Your task to perform on an android device: Open calendar and show me the fourth week of next month Image 0: 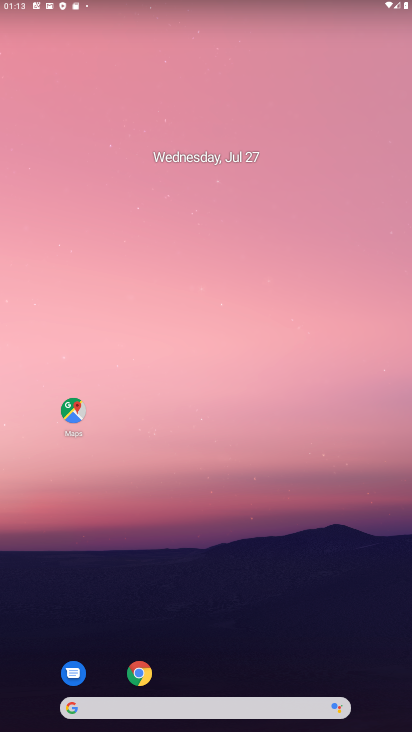
Step 0: drag from (249, 645) to (240, 190)
Your task to perform on an android device: Open calendar and show me the fourth week of next month Image 1: 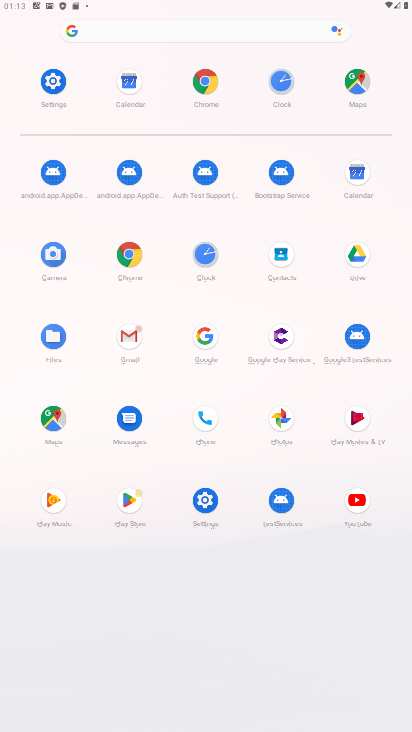
Step 1: click (353, 182)
Your task to perform on an android device: Open calendar and show me the fourth week of next month Image 2: 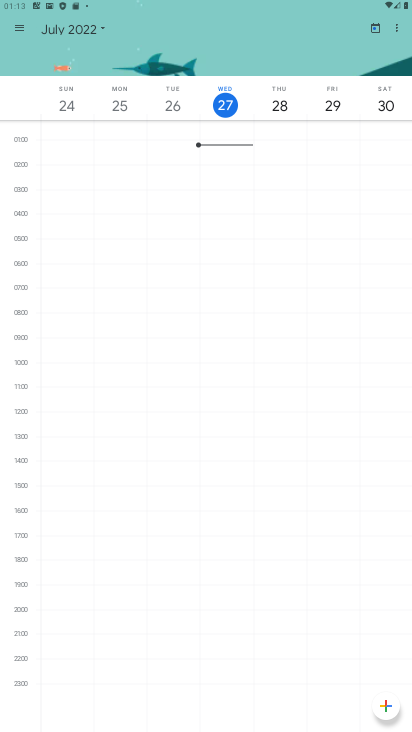
Step 2: task complete